Your task to perform on an android device: Go to Google Image 0: 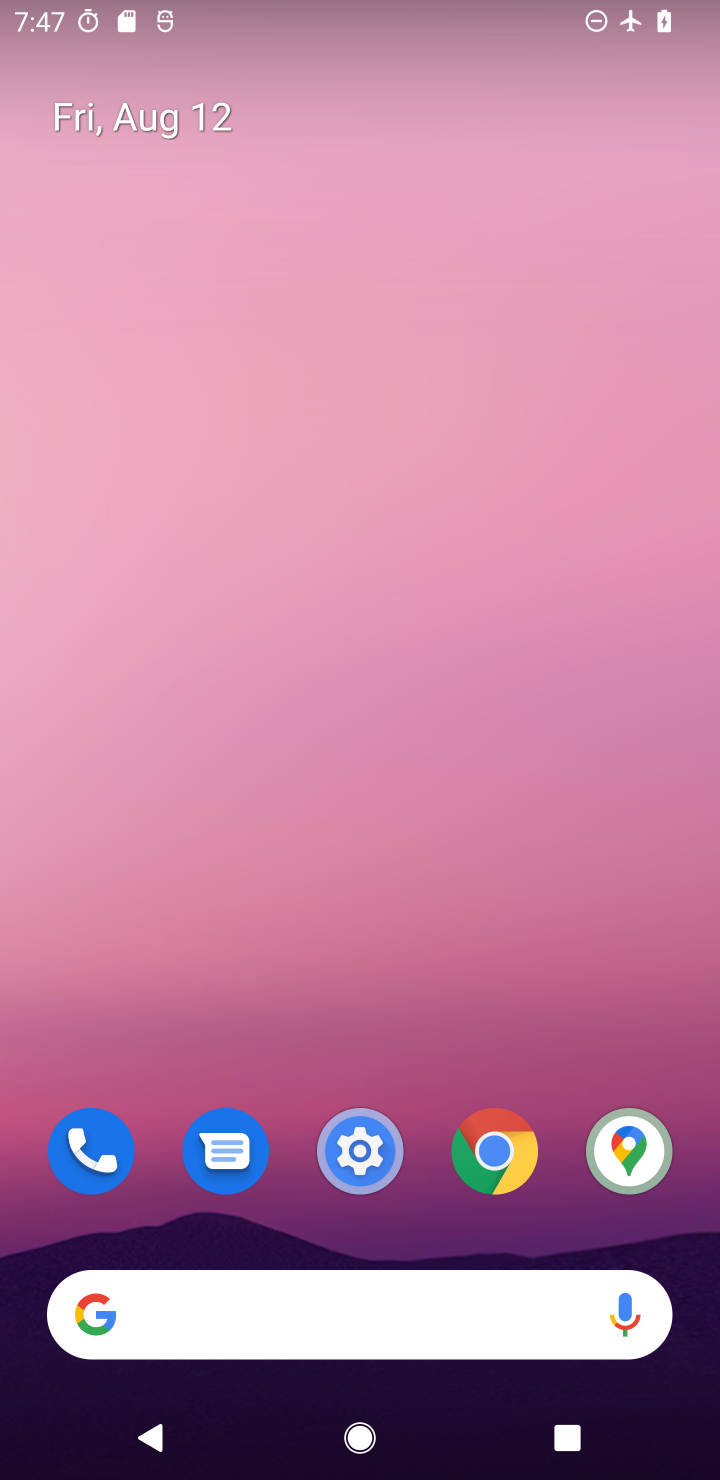
Step 0: drag from (540, 741) to (687, 362)
Your task to perform on an android device: Go to Google Image 1: 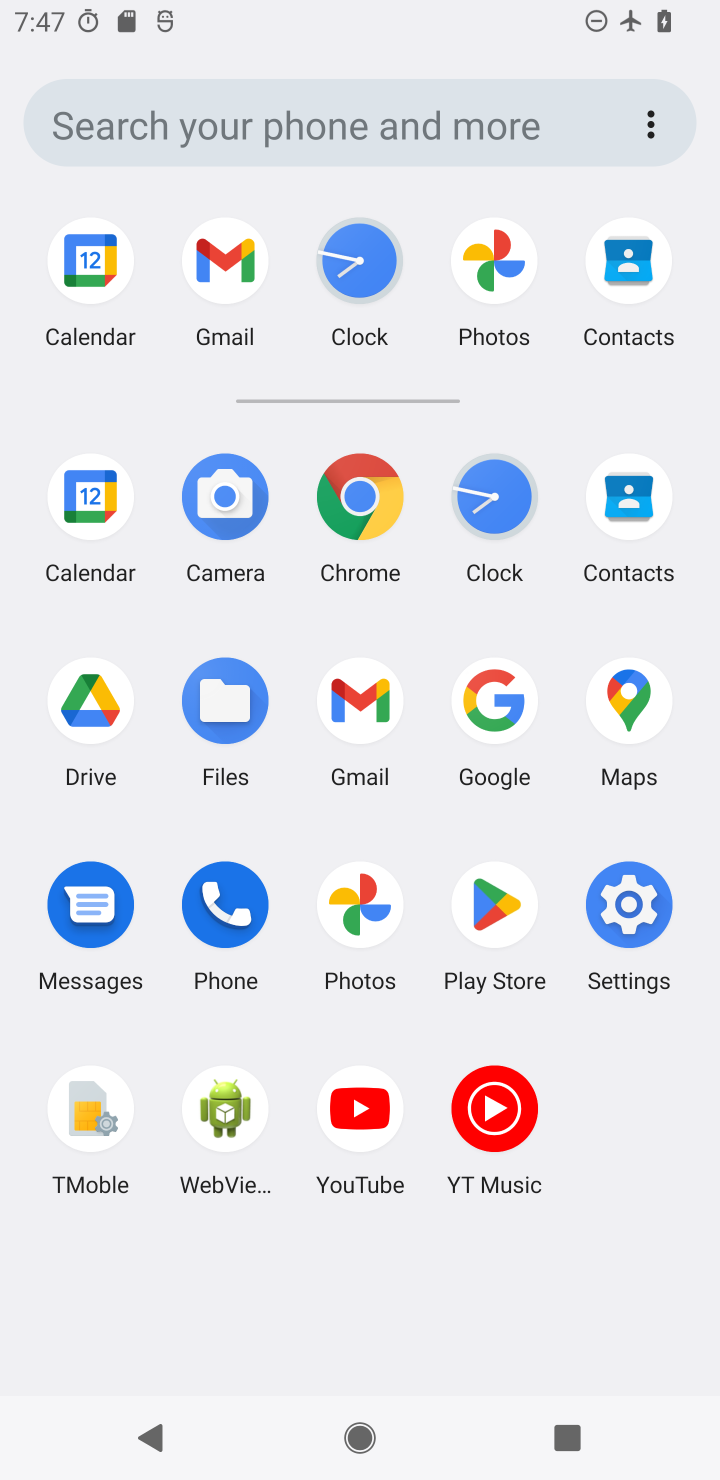
Step 1: click (501, 686)
Your task to perform on an android device: Go to Google Image 2: 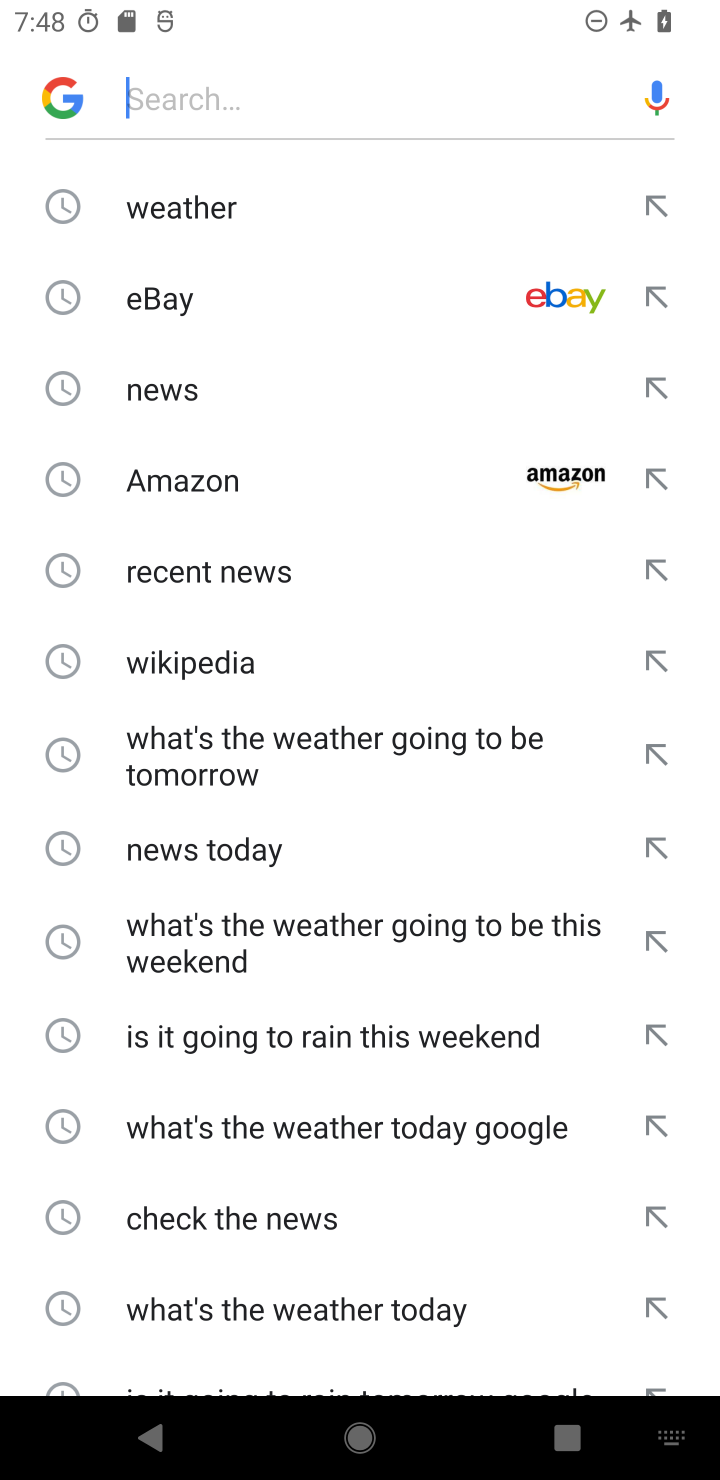
Step 2: task complete